Your task to perform on an android device: Is it going to rain tomorrow? Image 0: 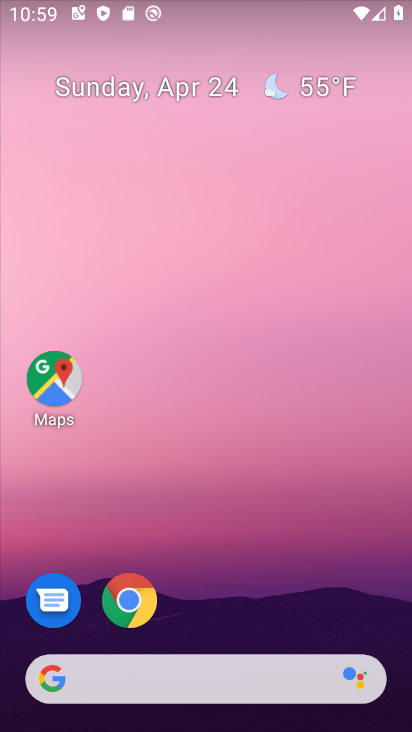
Step 0: click (176, 674)
Your task to perform on an android device: Is it going to rain tomorrow? Image 1: 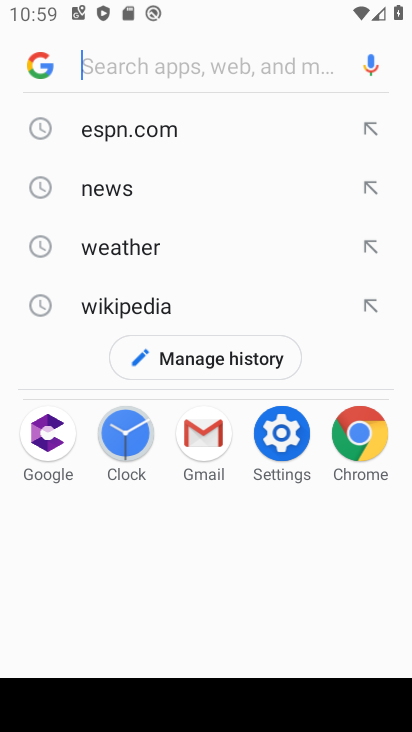
Step 1: click (40, 73)
Your task to perform on an android device: Is it going to rain tomorrow? Image 2: 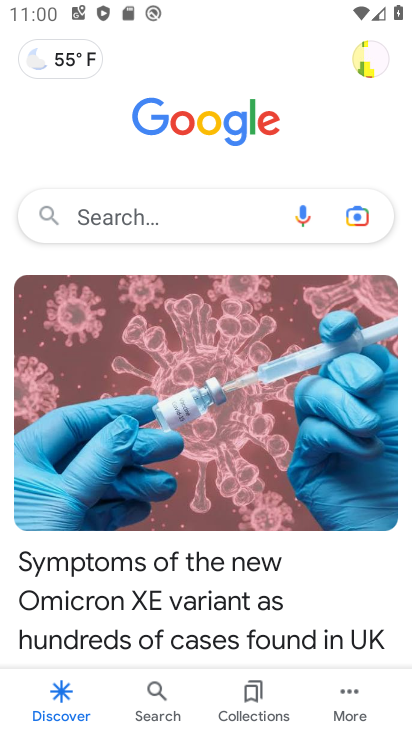
Step 2: click (77, 61)
Your task to perform on an android device: Is it going to rain tomorrow? Image 3: 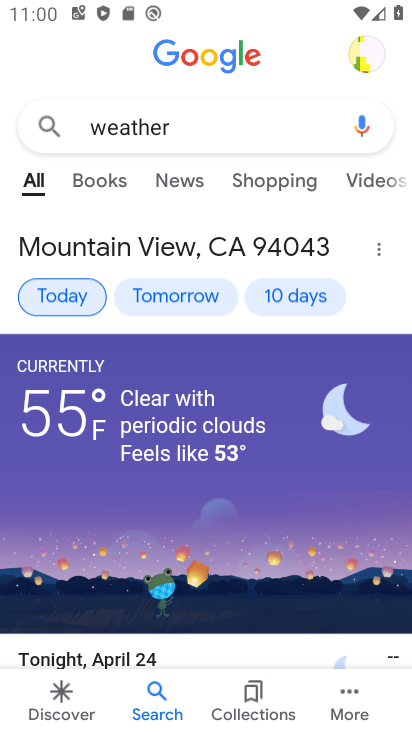
Step 3: click (206, 290)
Your task to perform on an android device: Is it going to rain tomorrow? Image 4: 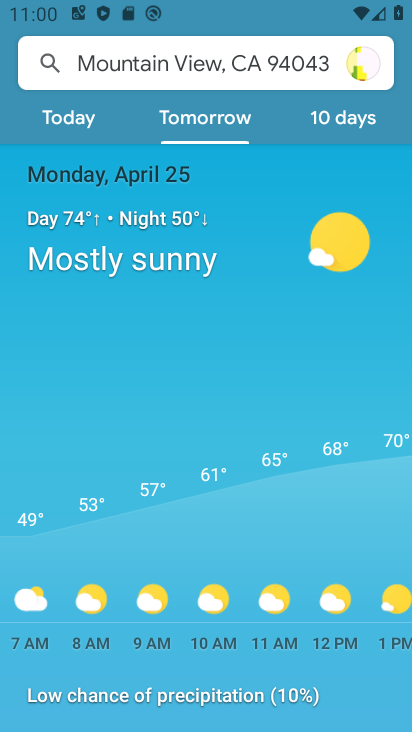
Step 4: task complete